Your task to perform on an android device: Open privacy settings Image 0: 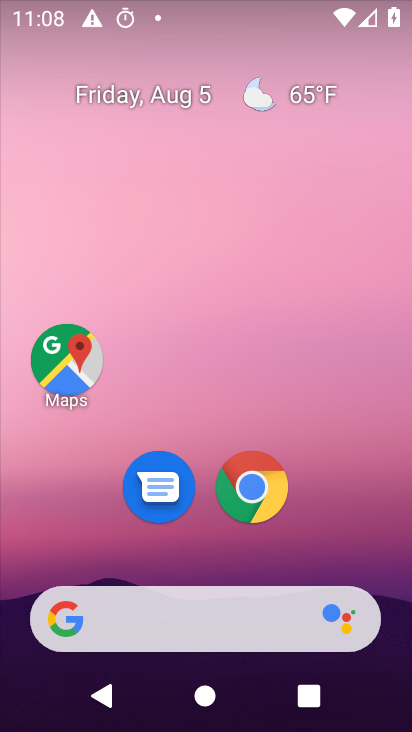
Step 0: drag from (197, 561) to (279, 83)
Your task to perform on an android device: Open privacy settings Image 1: 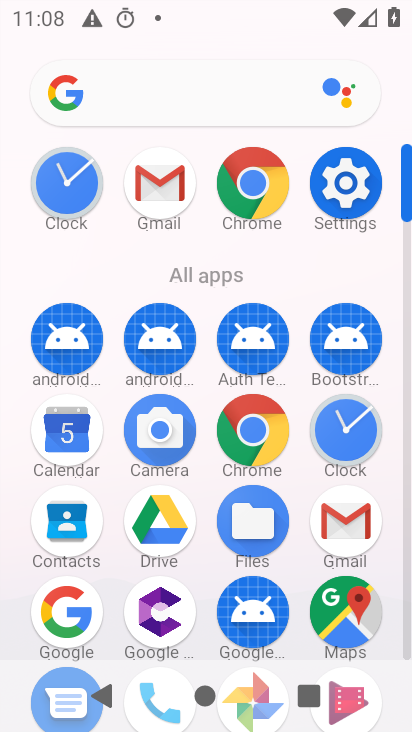
Step 1: click (352, 181)
Your task to perform on an android device: Open privacy settings Image 2: 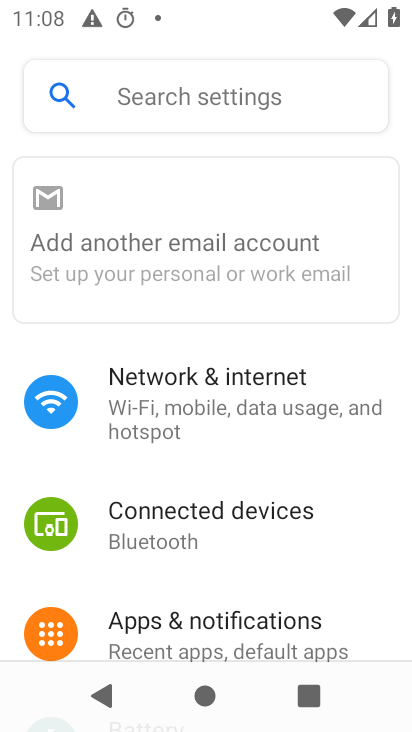
Step 2: drag from (176, 603) to (305, 70)
Your task to perform on an android device: Open privacy settings Image 3: 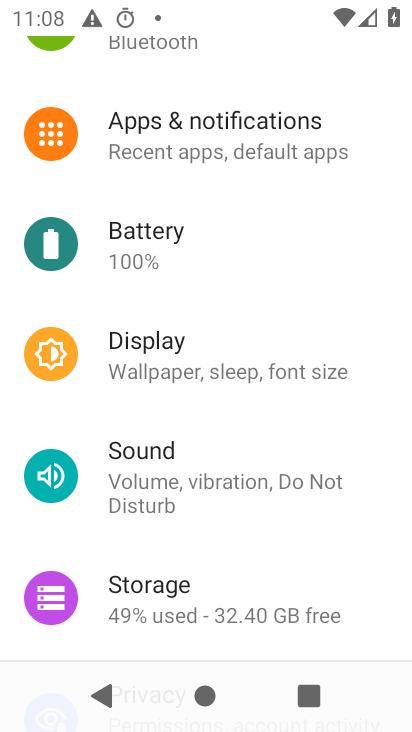
Step 3: drag from (171, 632) to (258, 104)
Your task to perform on an android device: Open privacy settings Image 4: 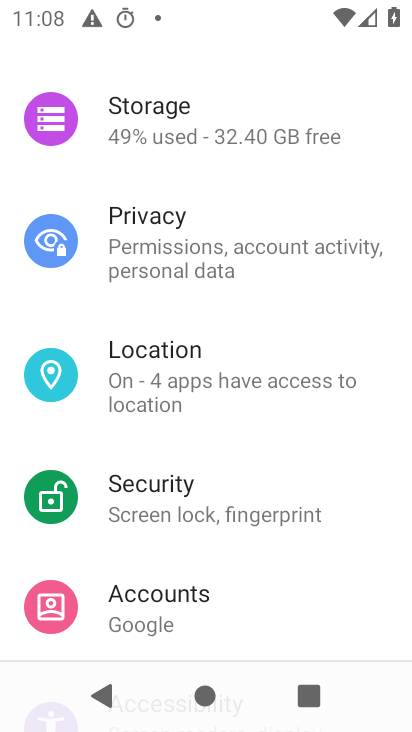
Step 4: click (167, 256)
Your task to perform on an android device: Open privacy settings Image 5: 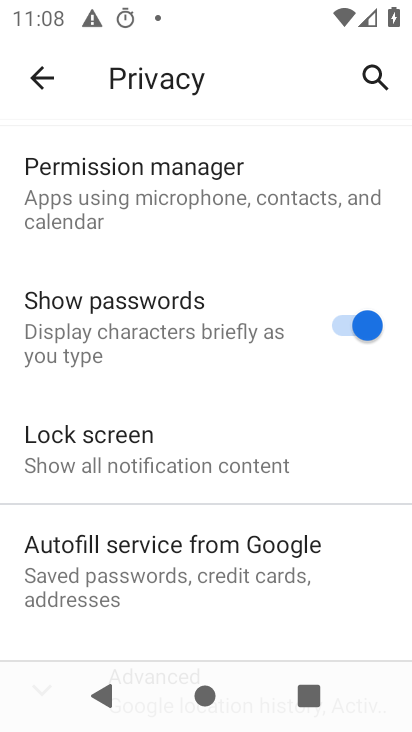
Step 5: task complete